Your task to perform on an android device: add a contact Image 0: 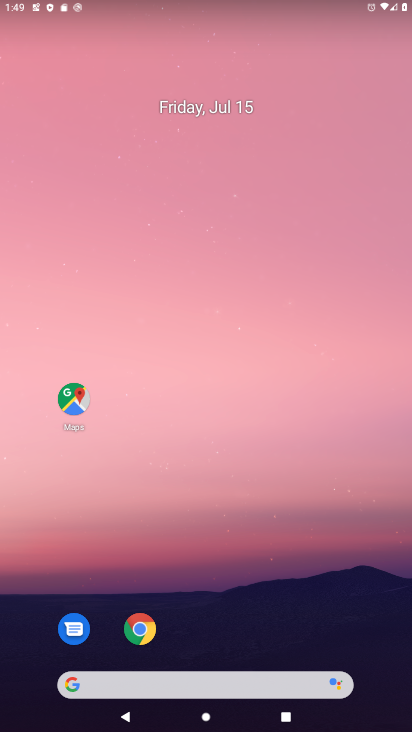
Step 0: drag from (306, 598) to (278, 157)
Your task to perform on an android device: add a contact Image 1: 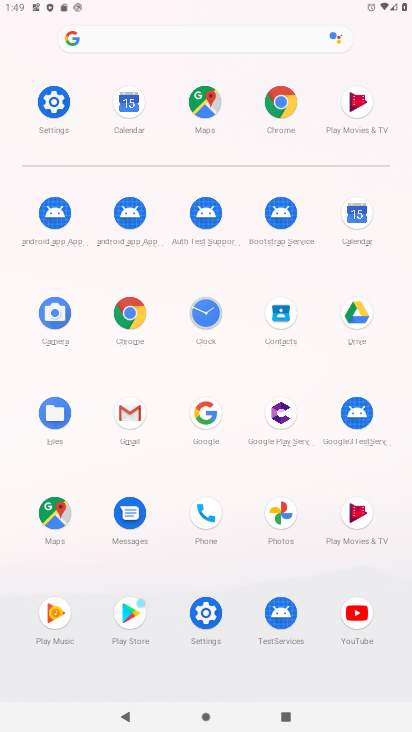
Step 1: click (277, 316)
Your task to perform on an android device: add a contact Image 2: 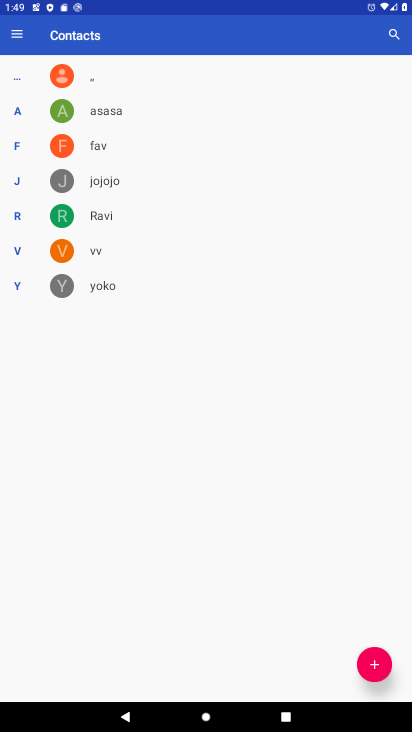
Step 2: click (382, 655)
Your task to perform on an android device: add a contact Image 3: 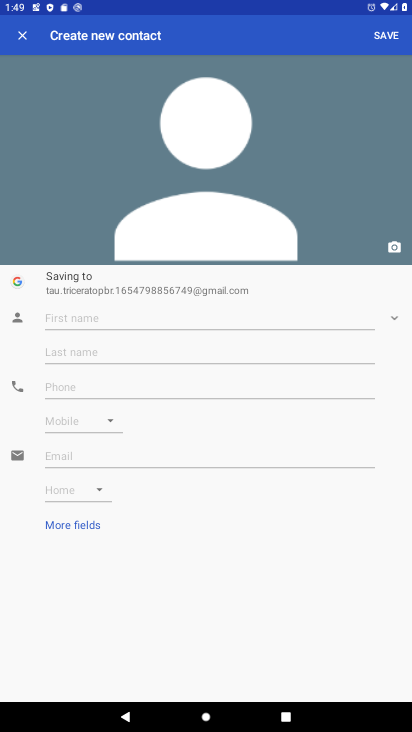
Step 3: click (241, 315)
Your task to perform on an android device: add a contact Image 4: 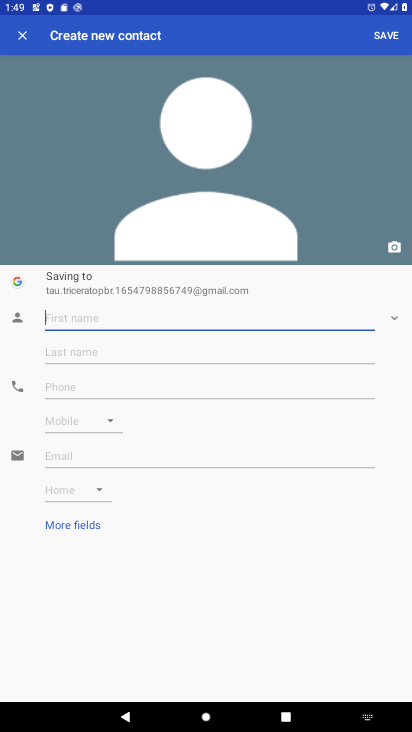
Step 4: type "prmeshwar"
Your task to perform on an android device: add a contact Image 5: 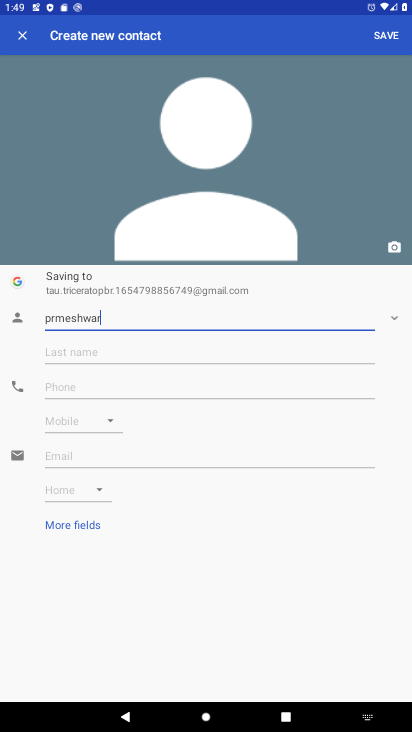
Step 5: click (391, 28)
Your task to perform on an android device: add a contact Image 6: 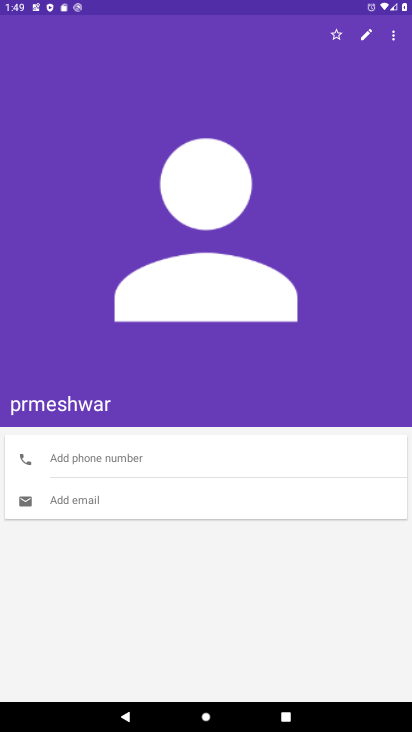
Step 6: task complete